Your task to perform on an android device: Is it going to rain tomorrow? Image 0: 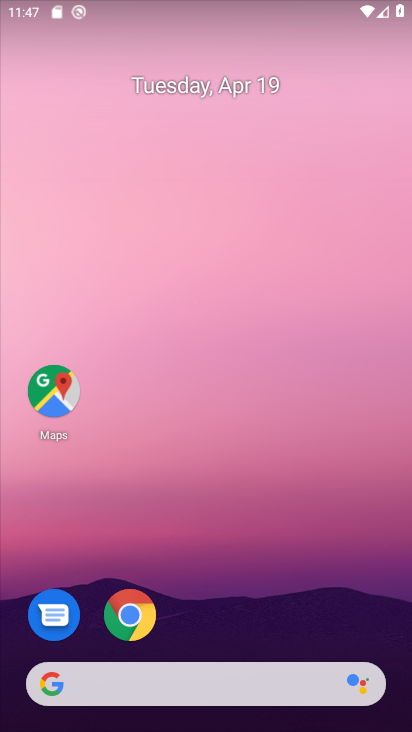
Step 0: drag from (192, 553) to (147, 2)
Your task to perform on an android device: Is it going to rain tomorrow? Image 1: 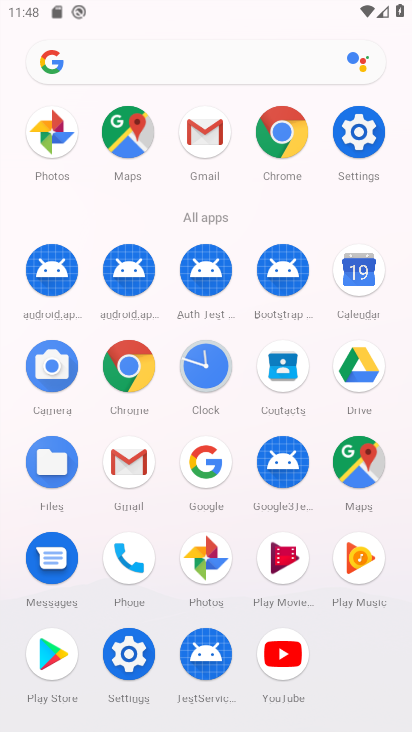
Step 1: click (201, 481)
Your task to perform on an android device: Is it going to rain tomorrow? Image 2: 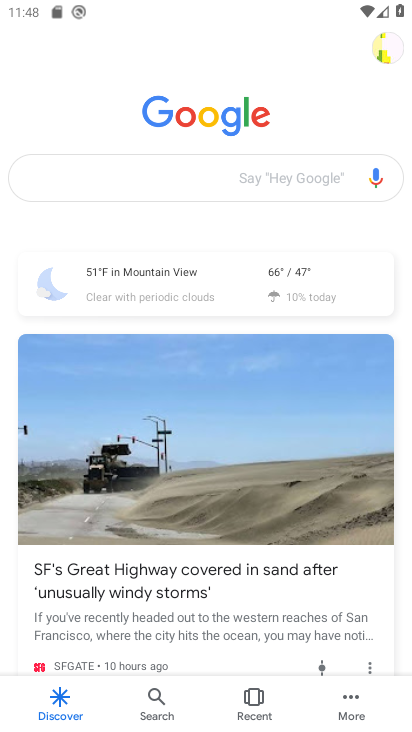
Step 2: click (116, 266)
Your task to perform on an android device: Is it going to rain tomorrow? Image 3: 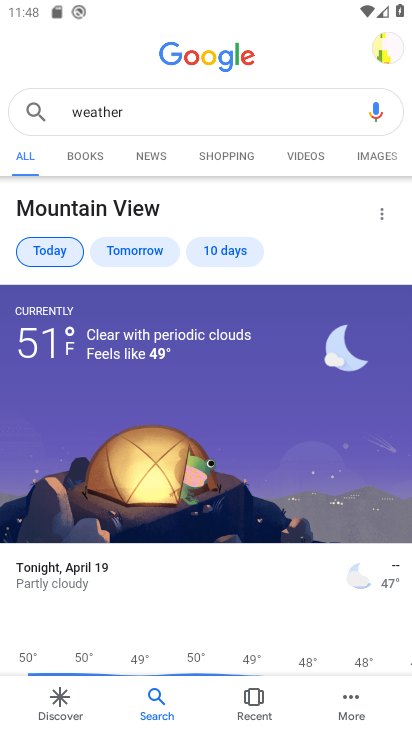
Step 3: click (133, 256)
Your task to perform on an android device: Is it going to rain tomorrow? Image 4: 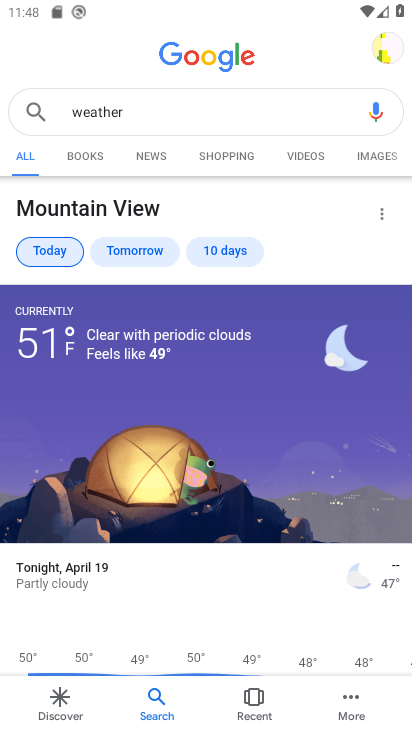
Step 4: click (171, 254)
Your task to perform on an android device: Is it going to rain tomorrow? Image 5: 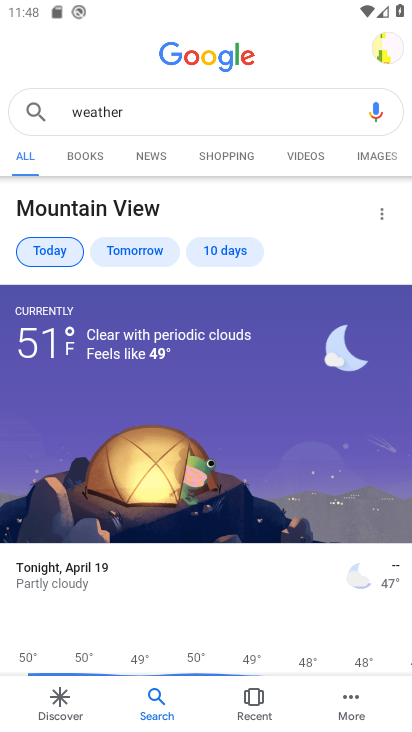
Step 5: drag from (249, 479) to (248, 157)
Your task to perform on an android device: Is it going to rain tomorrow? Image 6: 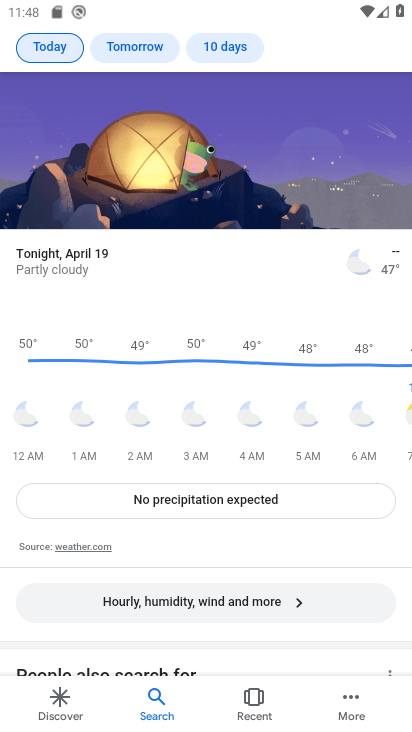
Step 6: drag from (233, 492) to (234, 115)
Your task to perform on an android device: Is it going to rain tomorrow? Image 7: 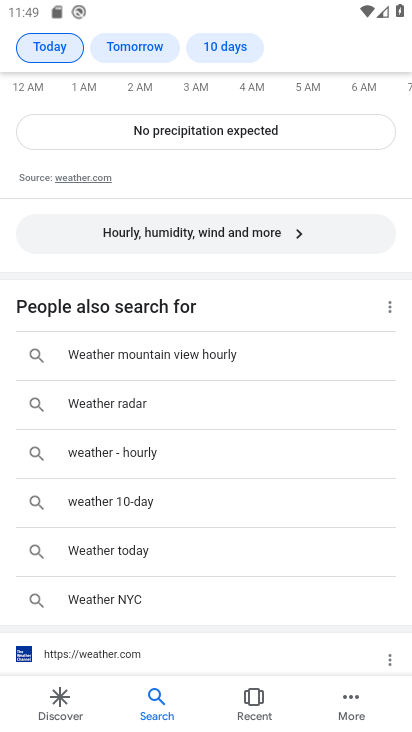
Step 7: drag from (174, 234) to (172, 655)
Your task to perform on an android device: Is it going to rain tomorrow? Image 8: 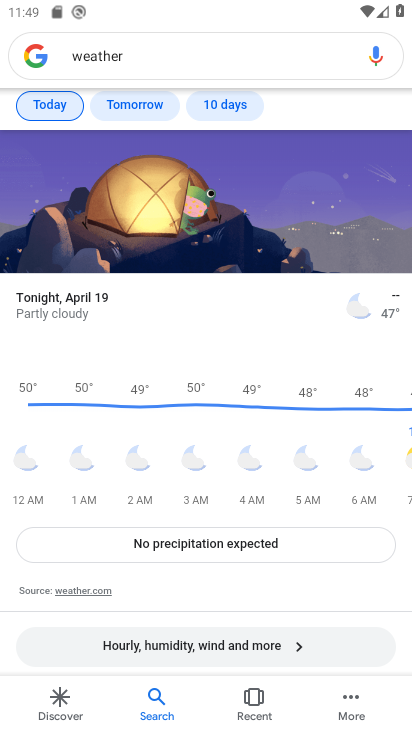
Step 8: click (156, 120)
Your task to perform on an android device: Is it going to rain tomorrow? Image 9: 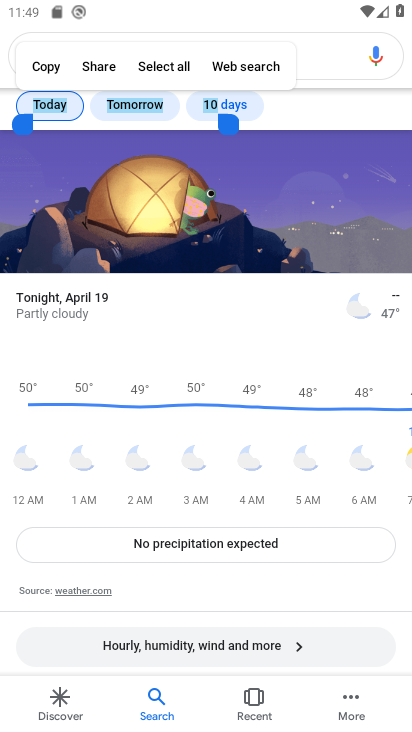
Step 9: drag from (362, 443) to (0, 483)
Your task to perform on an android device: Is it going to rain tomorrow? Image 10: 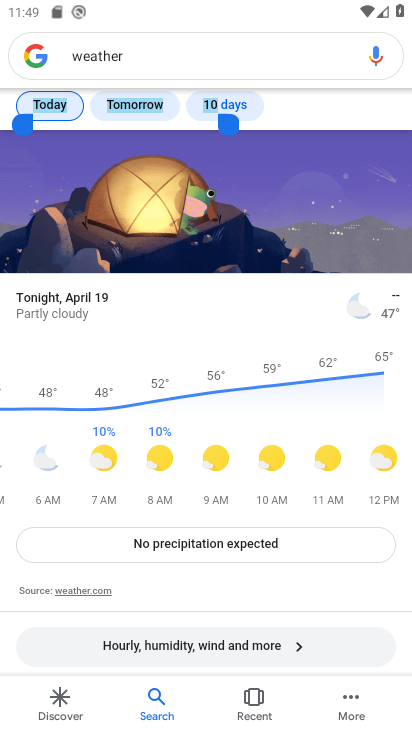
Step 10: drag from (328, 472) to (44, 462)
Your task to perform on an android device: Is it going to rain tomorrow? Image 11: 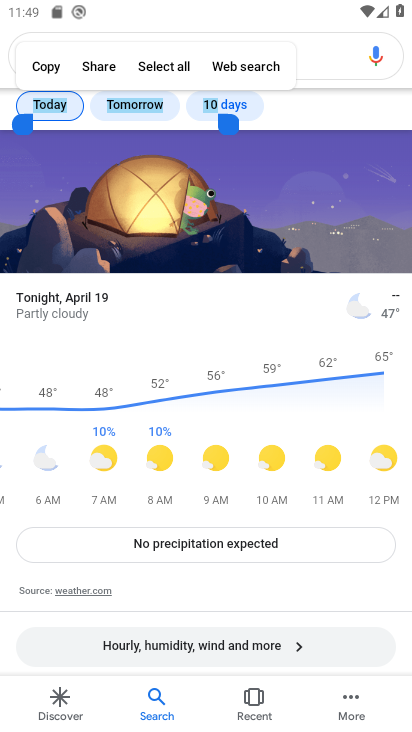
Step 11: drag from (275, 630) to (254, 183)
Your task to perform on an android device: Is it going to rain tomorrow? Image 12: 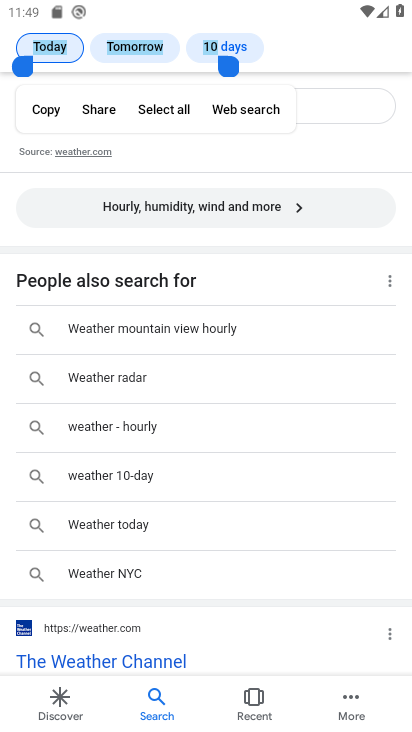
Step 12: click (128, 480)
Your task to perform on an android device: Is it going to rain tomorrow? Image 13: 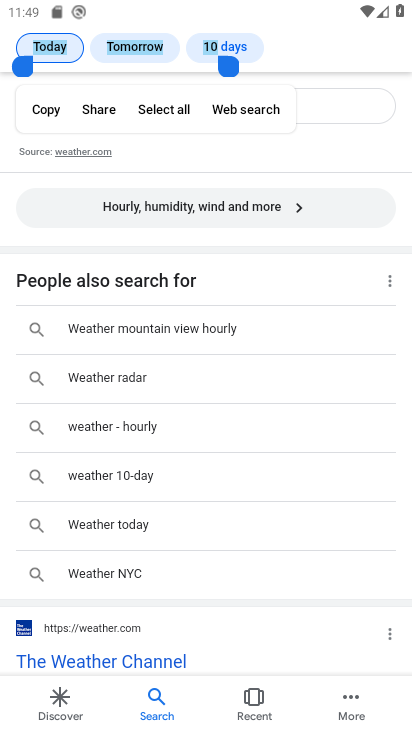
Step 13: click (119, 493)
Your task to perform on an android device: Is it going to rain tomorrow? Image 14: 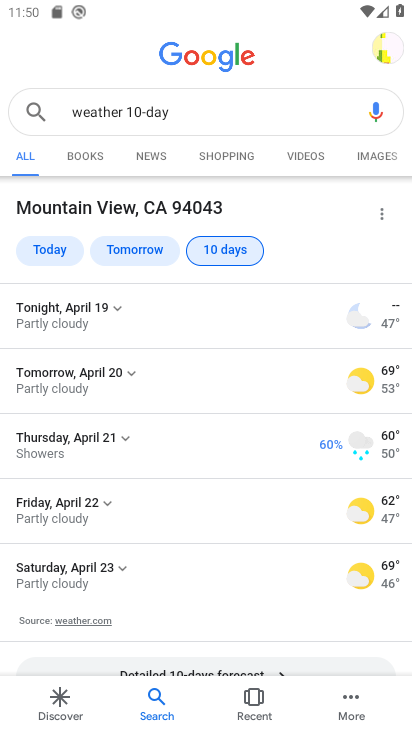
Step 14: click (128, 370)
Your task to perform on an android device: Is it going to rain tomorrow? Image 15: 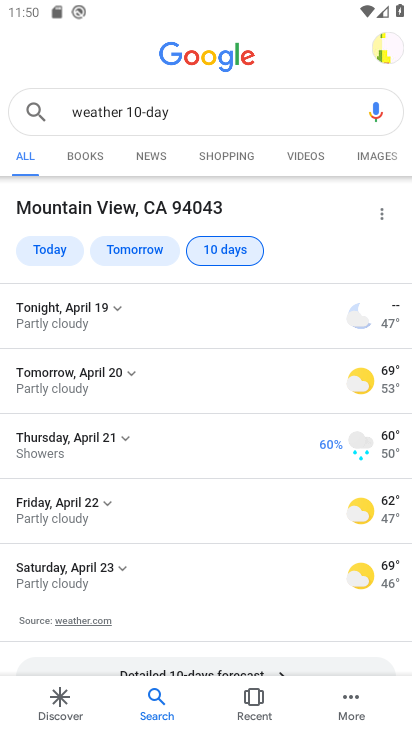
Step 15: click (242, 383)
Your task to perform on an android device: Is it going to rain tomorrow? Image 16: 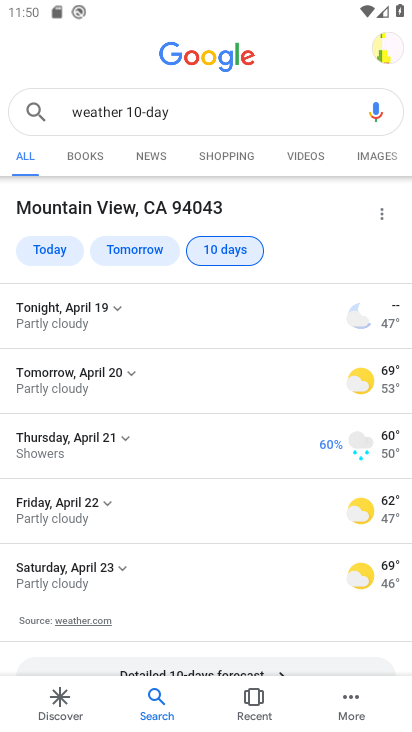
Step 16: task complete